Your task to perform on an android device: turn pop-ups off in chrome Image 0: 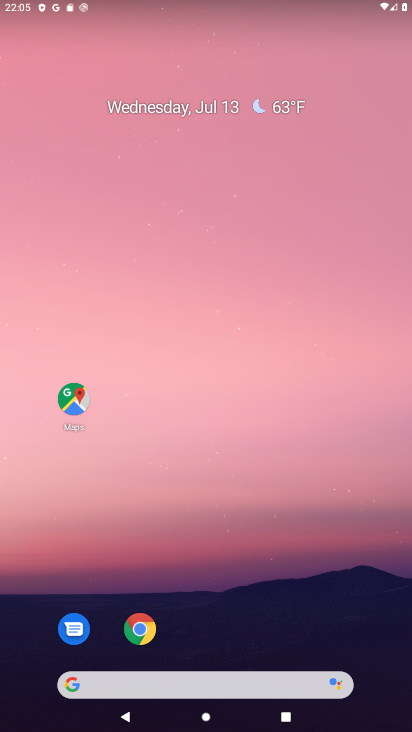
Step 0: drag from (231, 514) to (218, 282)
Your task to perform on an android device: turn pop-ups off in chrome Image 1: 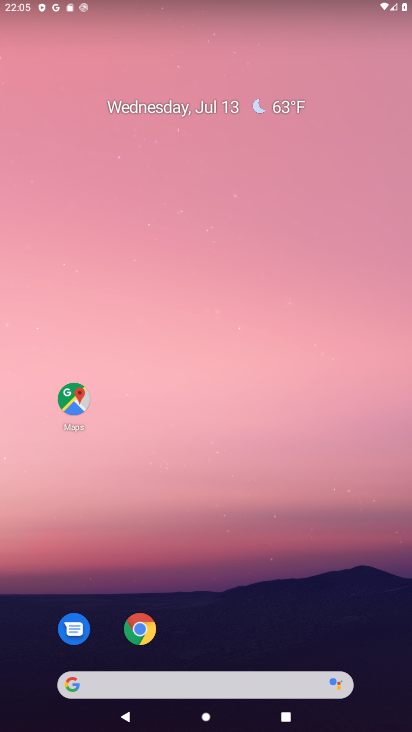
Step 1: drag from (248, 689) to (115, 72)
Your task to perform on an android device: turn pop-ups off in chrome Image 2: 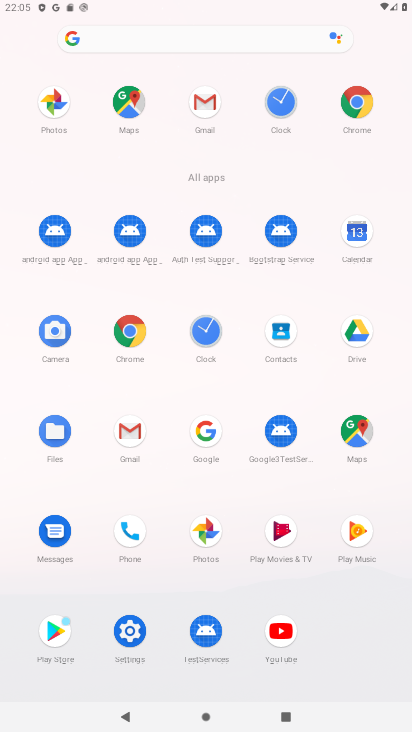
Step 2: click (351, 88)
Your task to perform on an android device: turn pop-ups off in chrome Image 3: 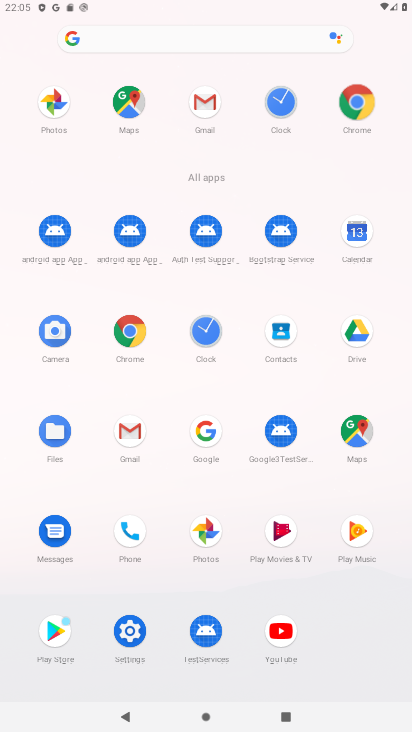
Step 3: click (352, 88)
Your task to perform on an android device: turn pop-ups off in chrome Image 4: 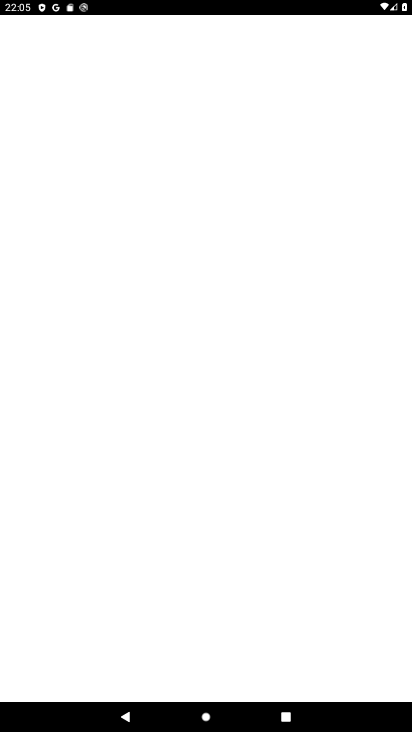
Step 4: click (354, 88)
Your task to perform on an android device: turn pop-ups off in chrome Image 5: 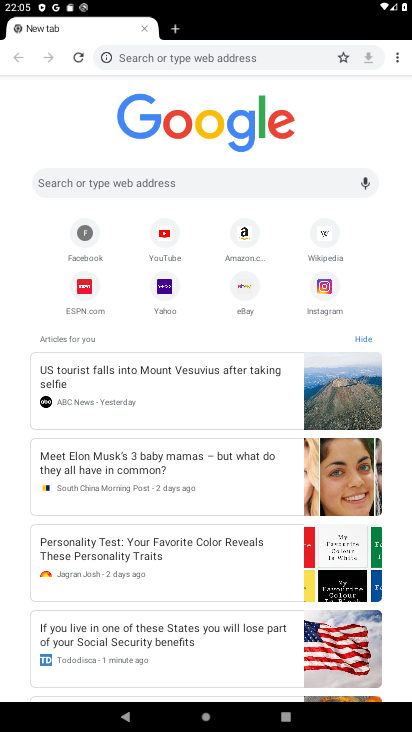
Step 5: drag from (396, 56) to (282, 264)
Your task to perform on an android device: turn pop-ups off in chrome Image 6: 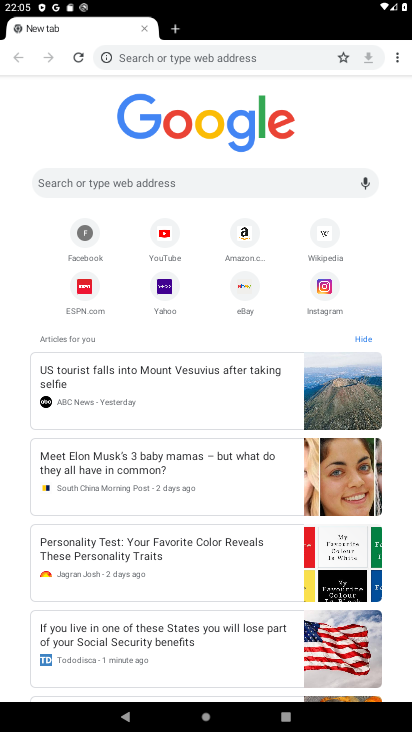
Step 6: click (283, 259)
Your task to perform on an android device: turn pop-ups off in chrome Image 7: 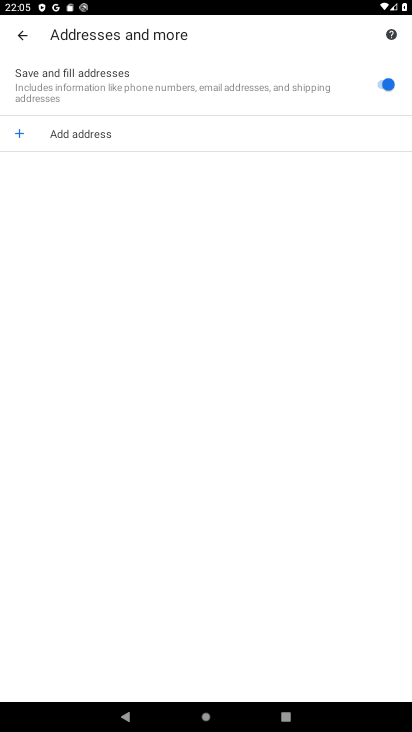
Step 7: click (13, 37)
Your task to perform on an android device: turn pop-ups off in chrome Image 8: 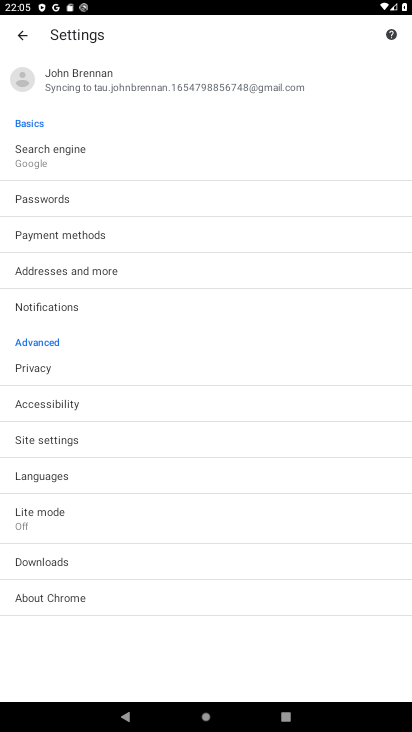
Step 8: click (44, 442)
Your task to perform on an android device: turn pop-ups off in chrome Image 9: 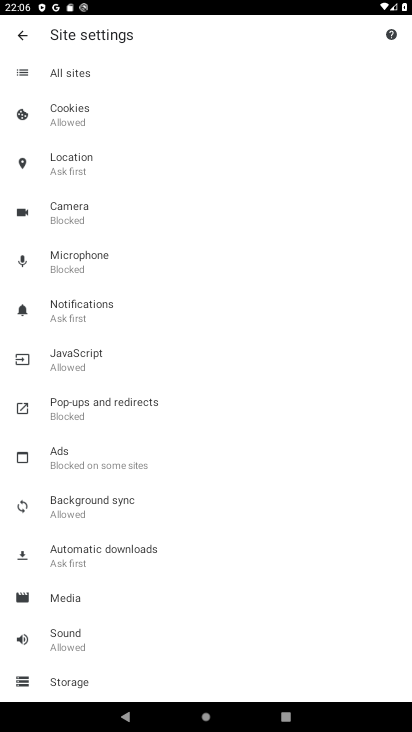
Step 9: click (86, 393)
Your task to perform on an android device: turn pop-ups off in chrome Image 10: 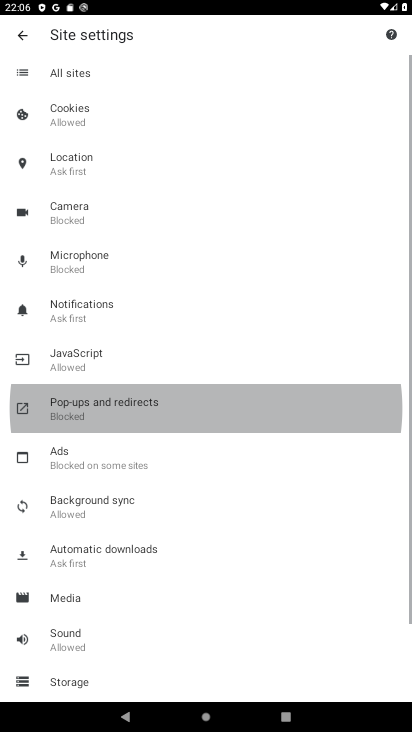
Step 10: click (88, 393)
Your task to perform on an android device: turn pop-ups off in chrome Image 11: 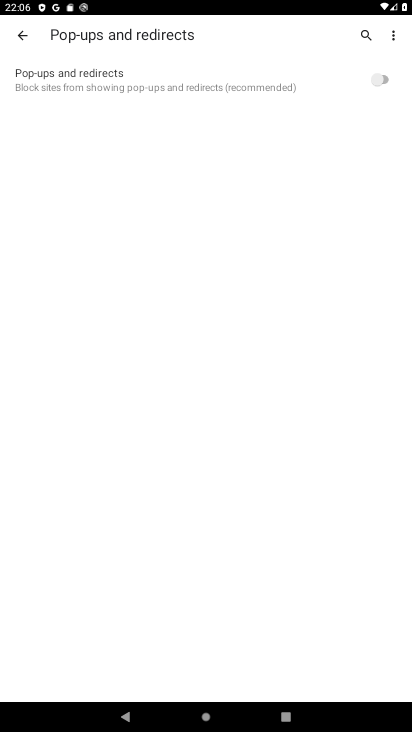
Step 11: click (88, 395)
Your task to perform on an android device: turn pop-ups off in chrome Image 12: 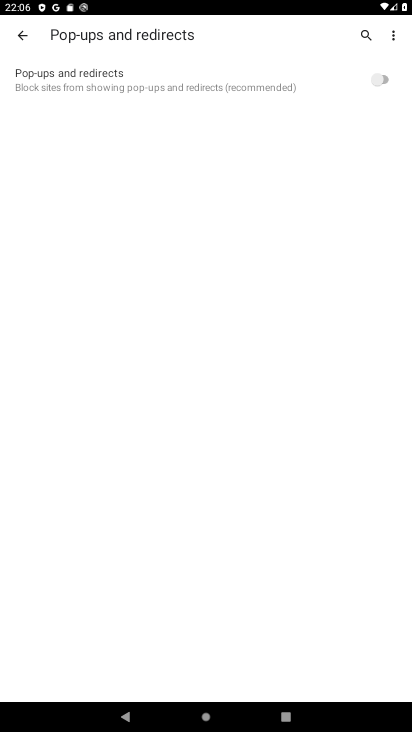
Step 12: task complete